Your task to perform on an android device: change keyboard looks Image 0: 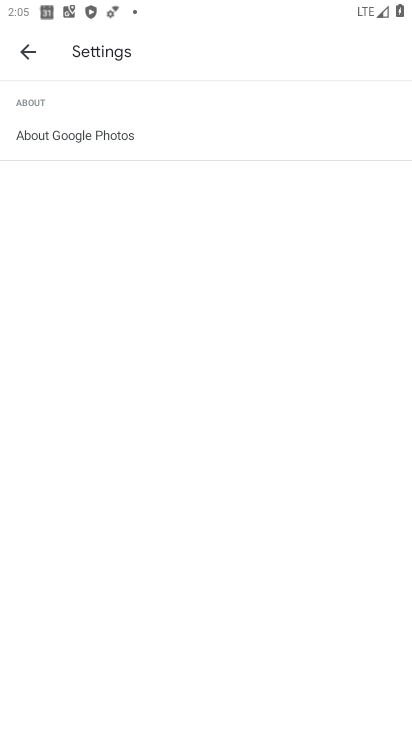
Step 0: press home button
Your task to perform on an android device: change keyboard looks Image 1: 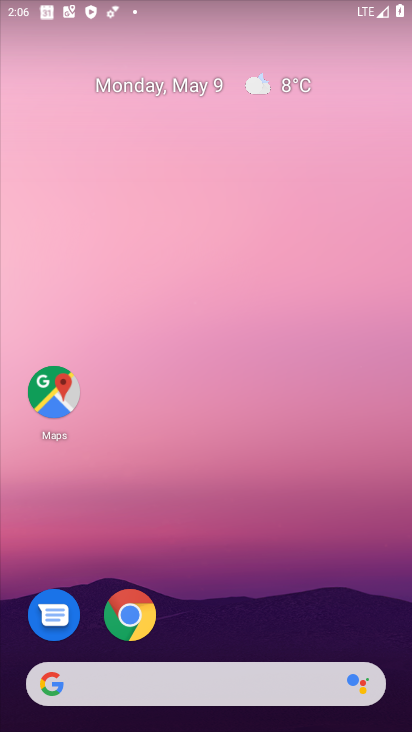
Step 1: drag from (359, 613) to (306, 51)
Your task to perform on an android device: change keyboard looks Image 2: 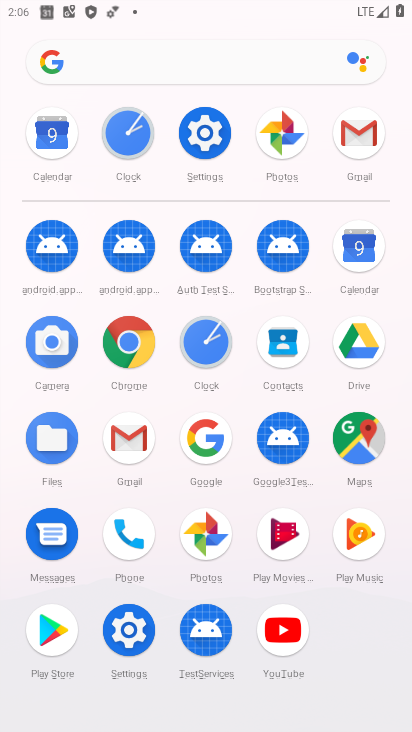
Step 2: click (125, 630)
Your task to perform on an android device: change keyboard looks Image 3: 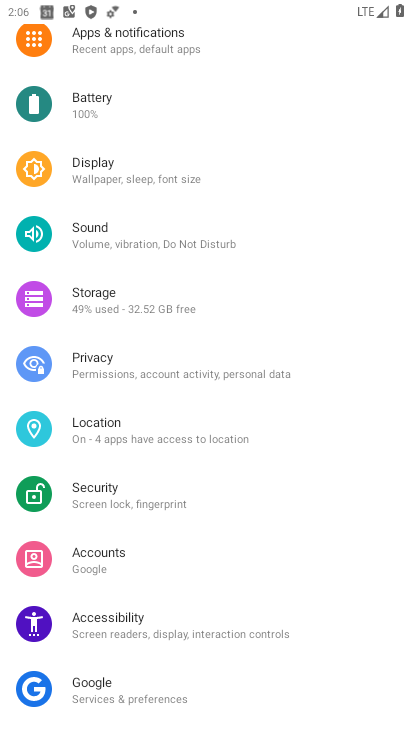
Step 3: drag from (288, 696) to (304, 296)
Your task to perform on an android device: change keyboard looks Image 4: 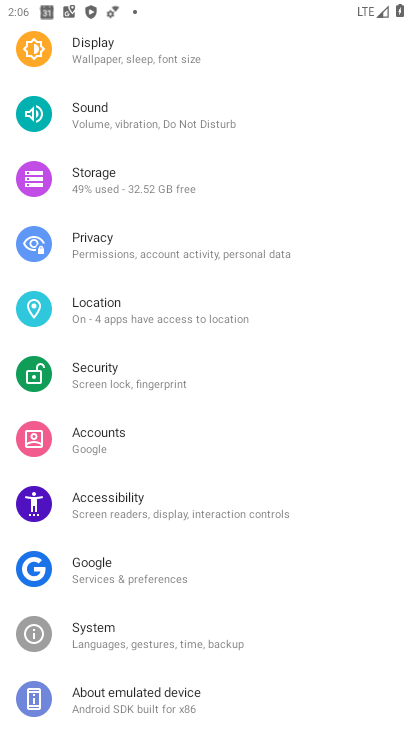
Step 4: click (86, 641)
Your task to perform on an android device: change keyboard looks Image 5: 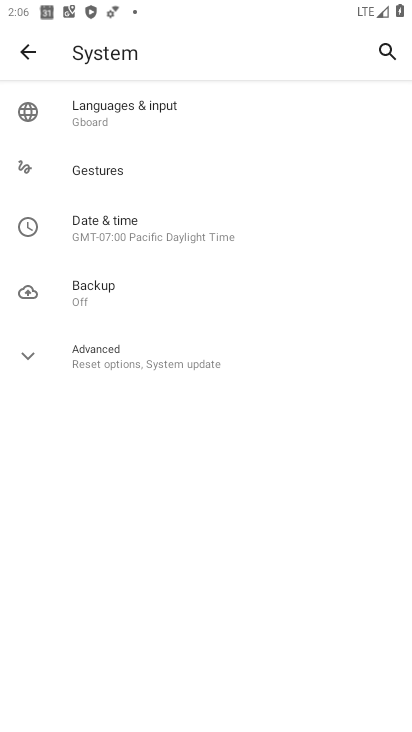
Step 5: click (93, 105)
Your task to perform on an android device: change keyboard looks Image 6: 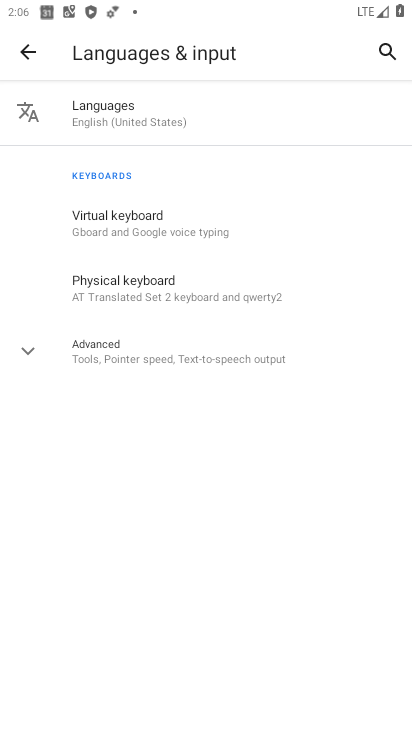
Step 6: click (104, 274)
Your task to perform on an android device: change keyboard looks Image 7: 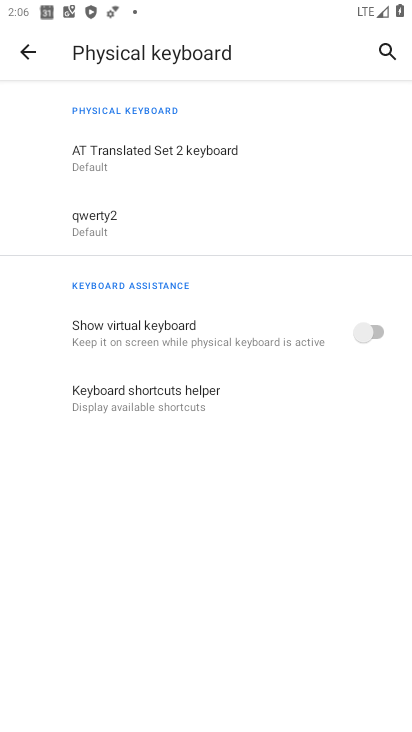
Step 7: click (98, 218)
Your task to perform on an android device: change keyboard looks Image 8: 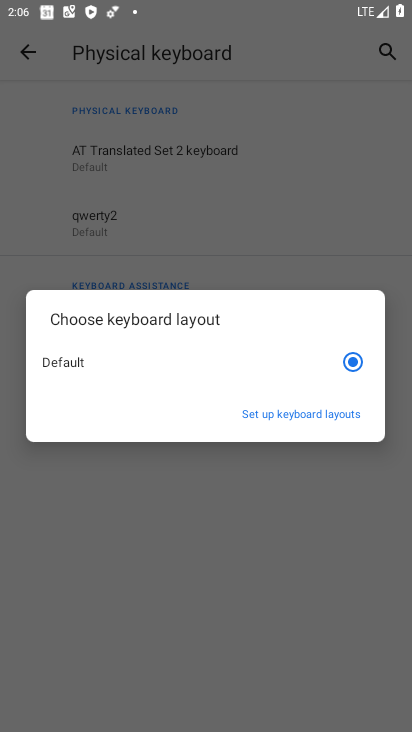
Step 8: click (283, 416)
Your task to perform on an android device: change keyboard looks Image 9: 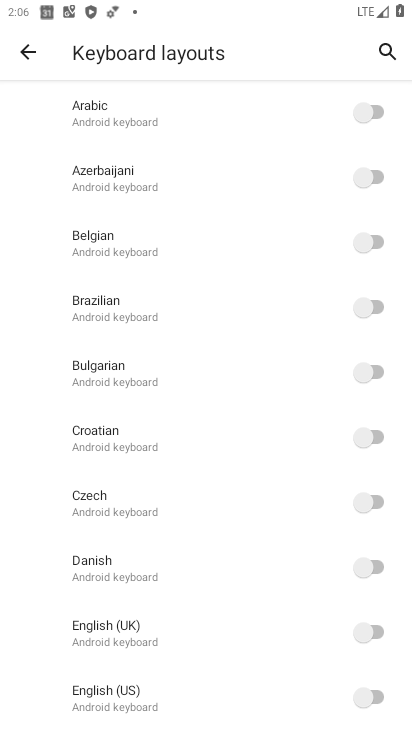
Step 9: click (374, 572)
Your task to perform on an android device: change keyboard looks Image 10: 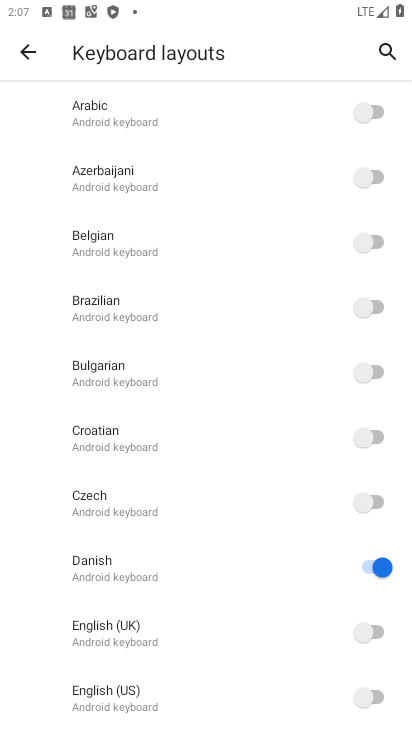
Step 10: task complete